Your task to perform on an android device: Open Amazon Image 0: 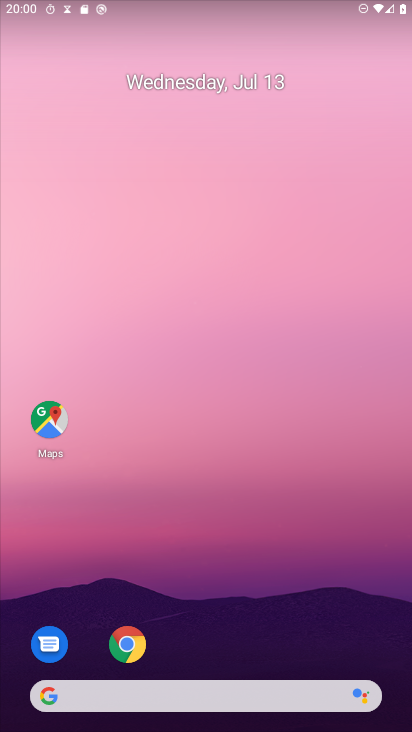
Step 0: click (137, 643)
Your task to perform on an android device: Open Amazon Image 1: 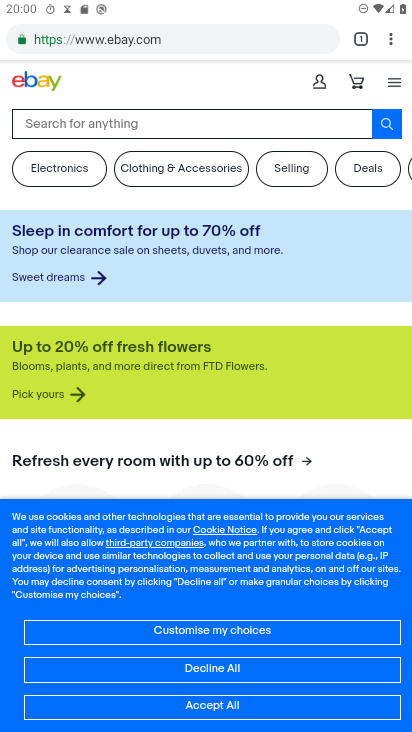
Step 1: click (211, 36)
Your task to perform on an android device: Open Amazon Image 2: 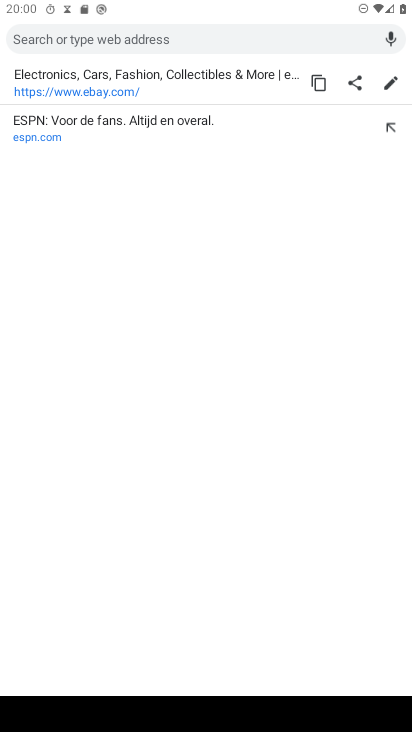
Step 2: type "amazon"
Your task to perform on an android device: Open Amazon Image 3: 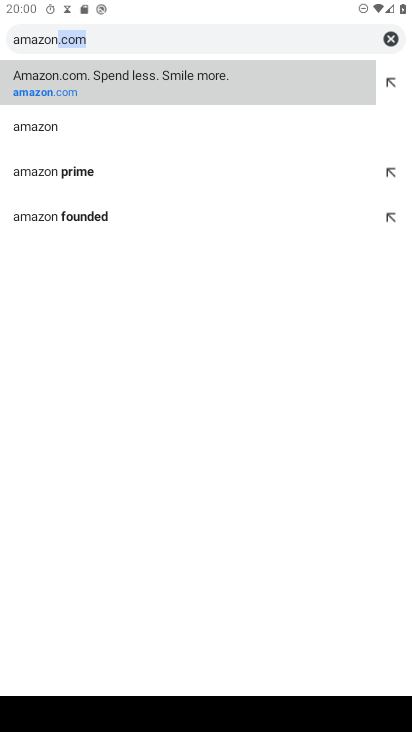
Step 3: click (54, 86)
Your task to perform on an android device: Open Amazon Image 4: 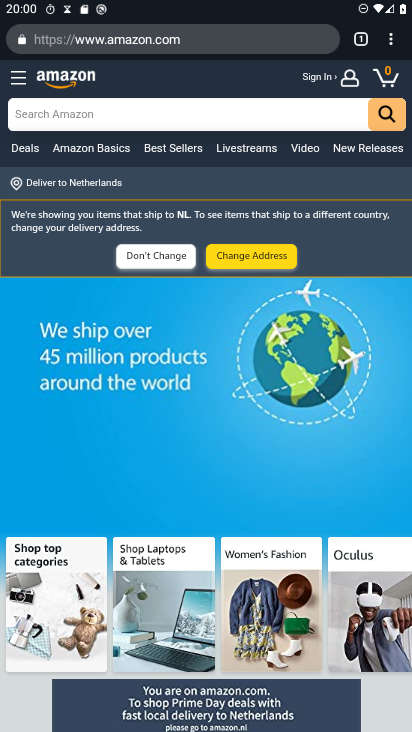
Step 4: task complete